Your task to perform on an android device: Search for flights from NYC to London Image 0: 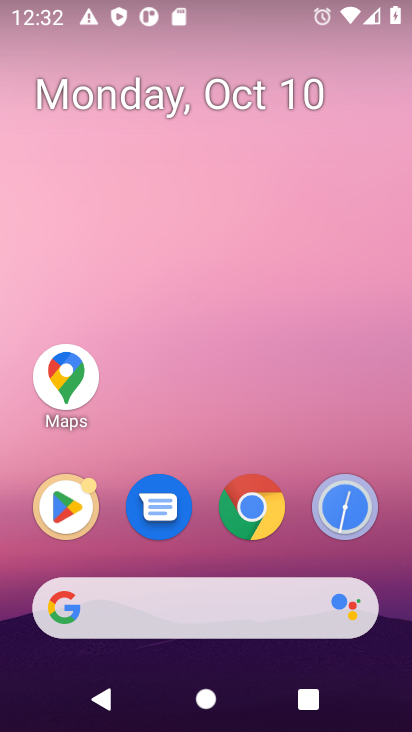
Step 0: click (253, 613)
Your task to perform on an android device: Search for flights from NYC to London Image 1: 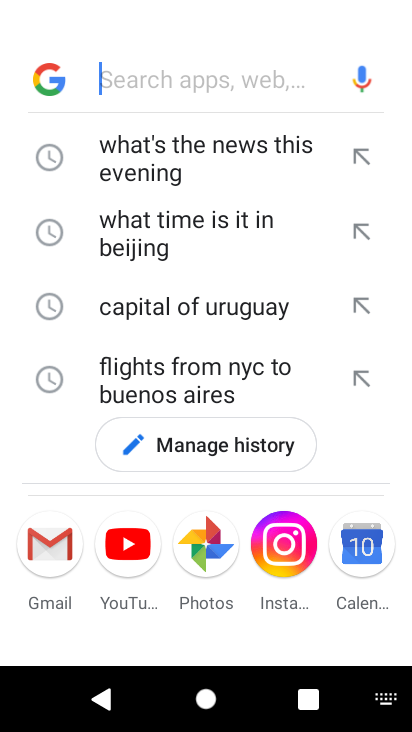
Step 1: type "flights from NYC to London"
Your task to perform on an android device: Search for flights from NYC to London Image 2: 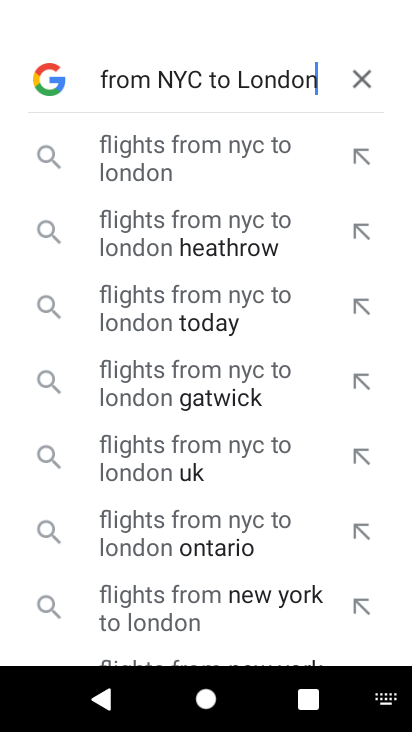
Step 2: press enter
Your task to perform on an android device: Search for flights from NYC to London Image 3: 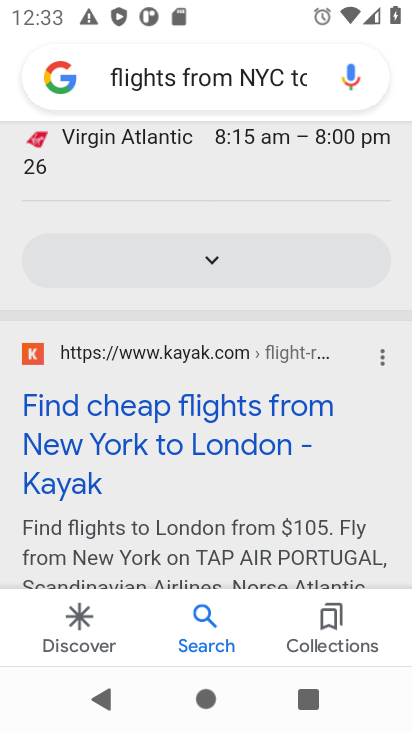
Step 3: drag from (264, 510) to (275, 382)
Your task to perform on an android device: Search for flights from NYC to London Image 4: 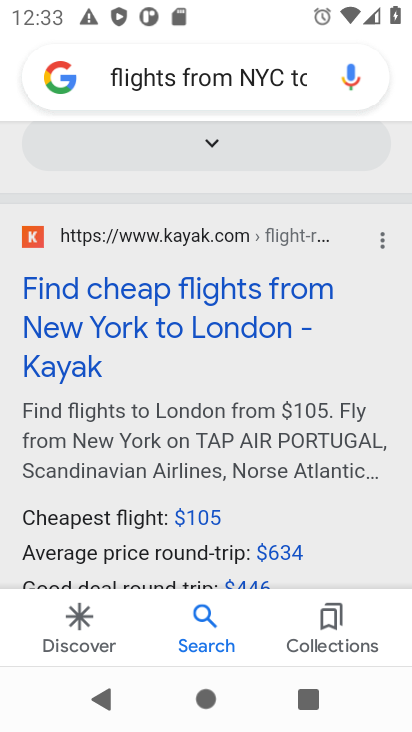
Step 4: drag from (264, 195) to (284, 525)
Your task to perform on an android device: Search for flights from NYC to London Image 5: 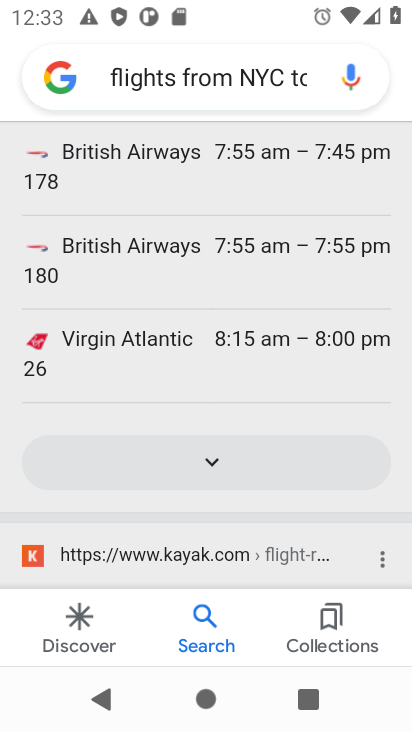
Step 5: click (210, 464)
Your task to perform on an android device: Search for flights from NYC to London Image 6: 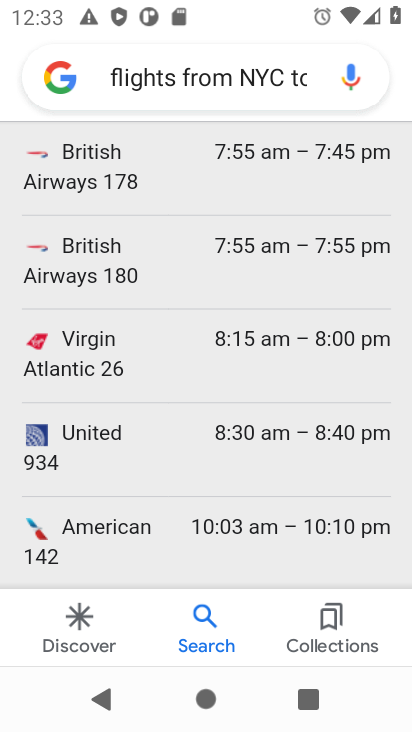
Step 6: task complete